Your task to perform on an android device: check the backup settings in the google photos Image 0: 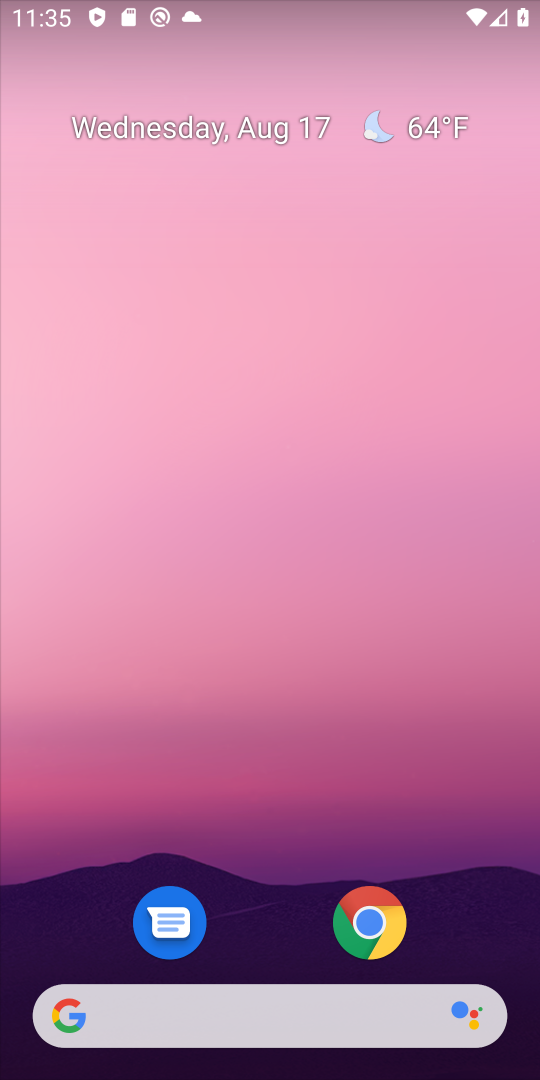
Step 0: drag from (258, 912) to (249, 133)
Your task to perform on an android device: check the backup settings in the google photos Image 1: 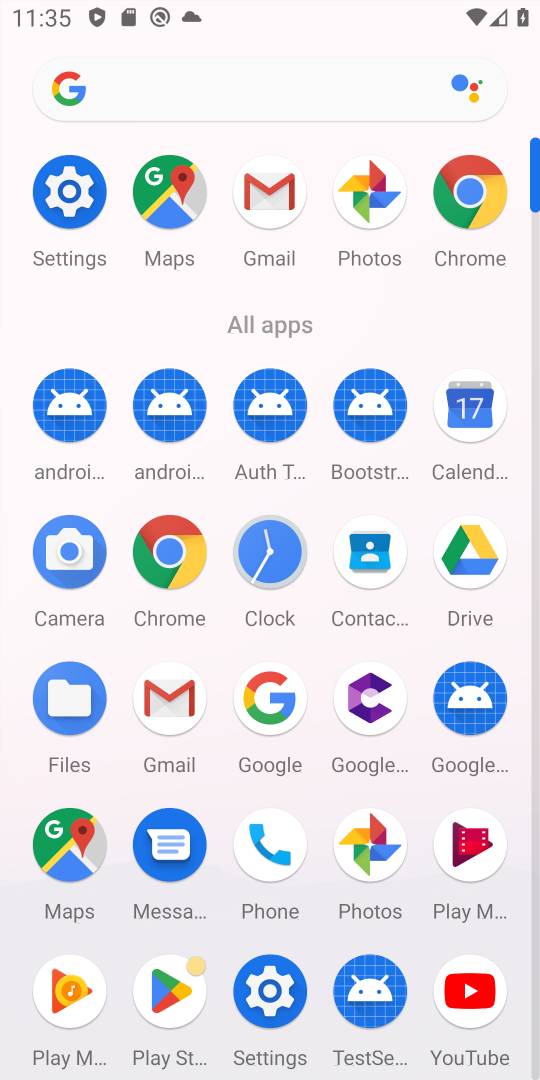
Step 1: click (374, 194)
Your task to perform on an android device: check the backup settings in the google photos Image 2: 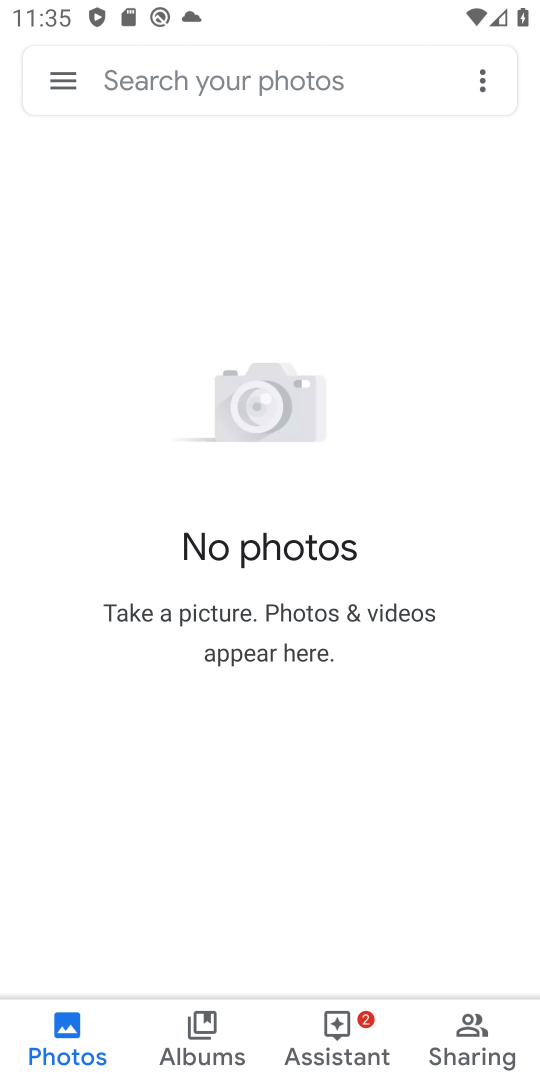
Step 2: click (59, 75)
Your task to perform on an android device: check the backup settings in the google photos Image 3: 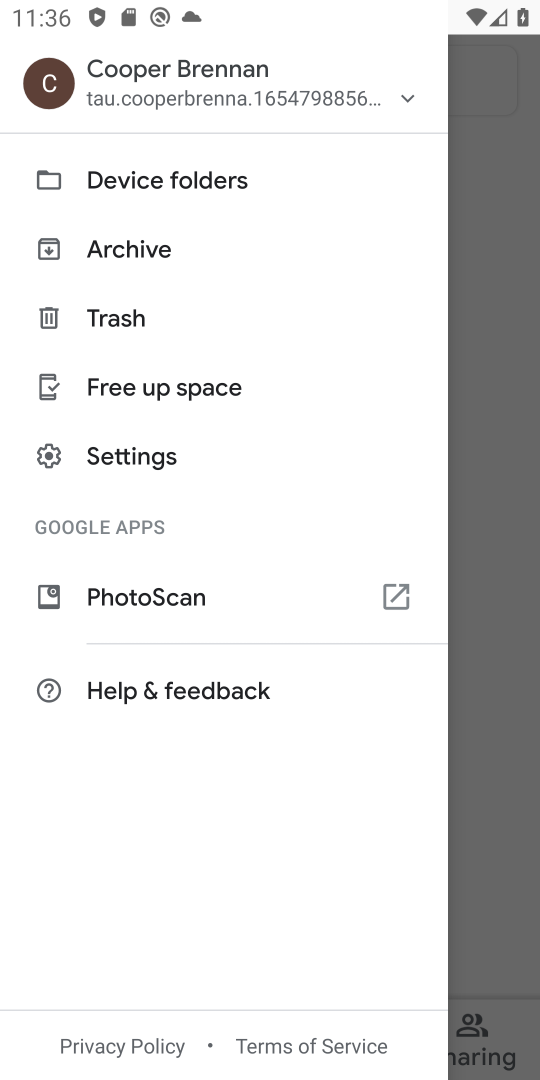
Step 3: click (129, 451)
Your task to perform on an android device: check the backup settings in the google photos Image 4: 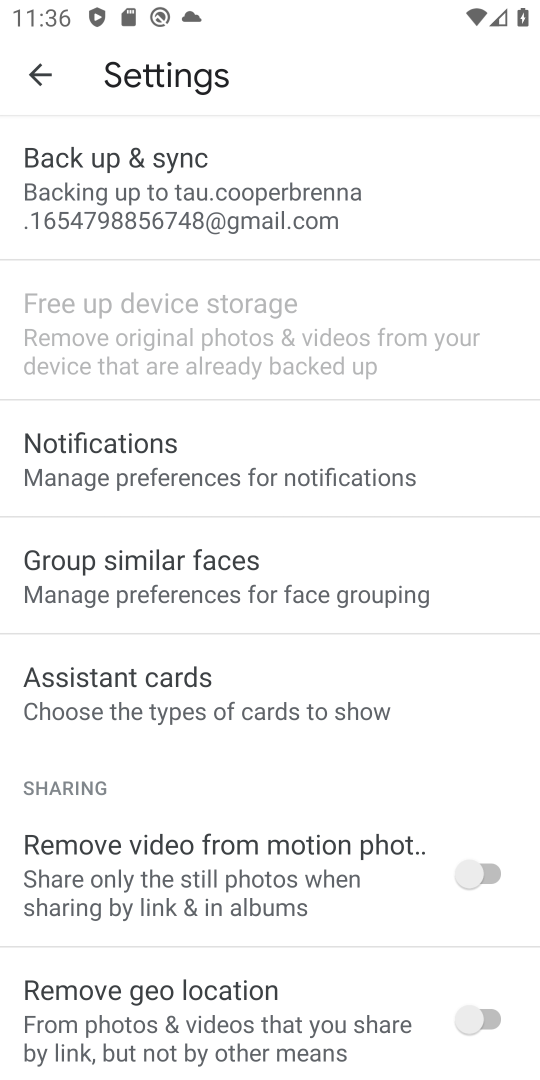
Step 4: click (125, 156)
Your task to perform on an android device: check the backup settings in the google photos Image 5: 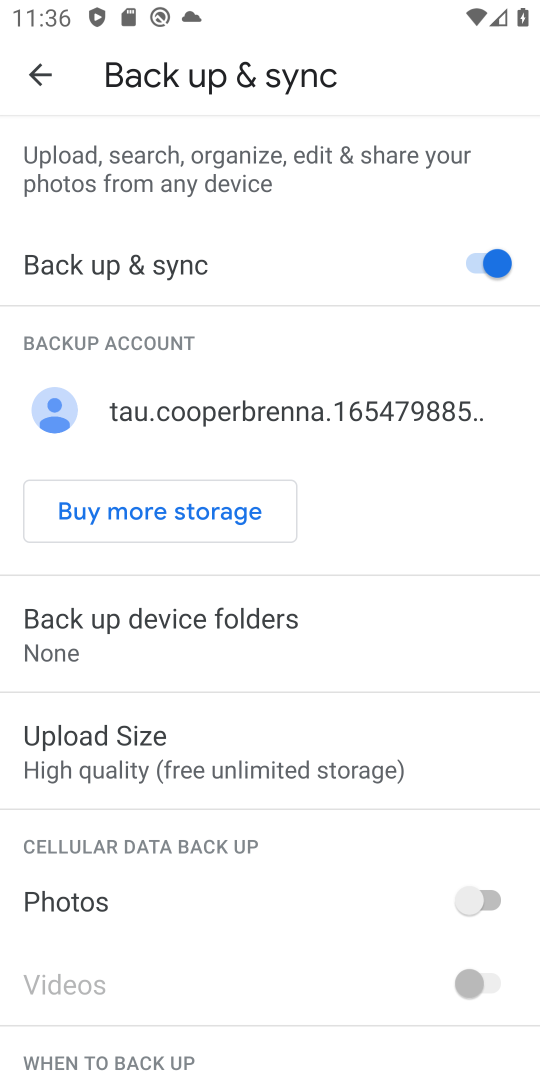
Step 5: task complete